Your task to perform on an android device: find photos in the google photos app Image 0: 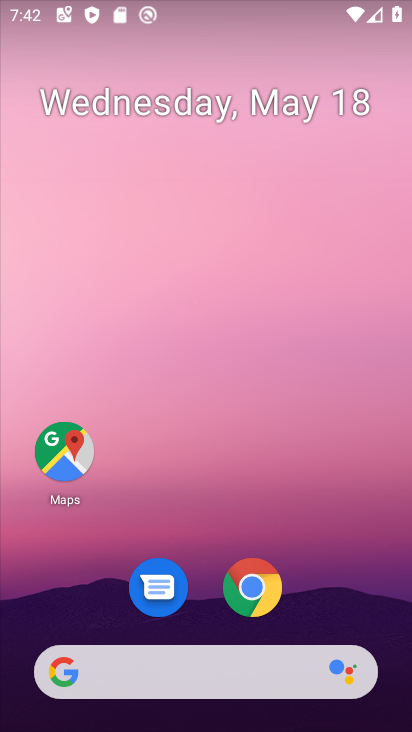
Step 0: drag from (204, 617) to (218, 213)
Your task to perform on an android device: find photos in the google photos app Image 1: 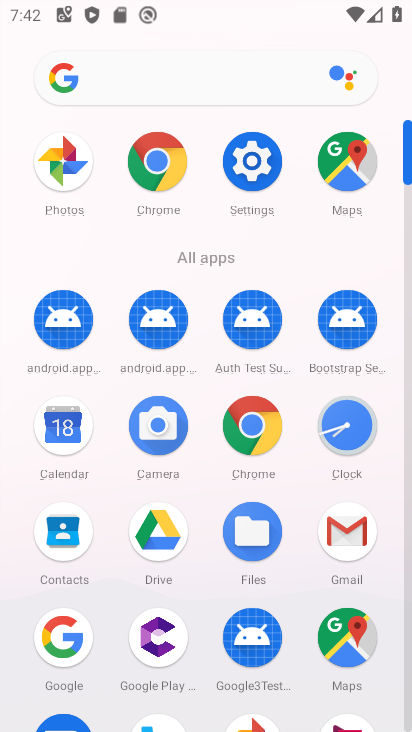
Step 1: click (58, 156)
Your task to perform on an android device: find photos in the google photos app Image 2: 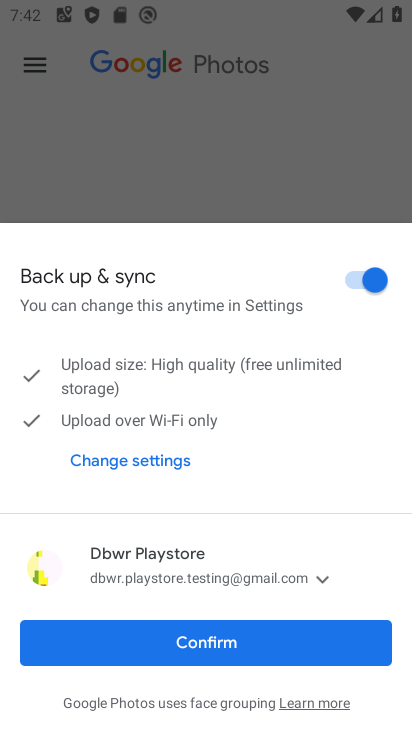
Step 2: click (256, 633)
Your task to perform on an android device: find photos in the google photos app Image 3: 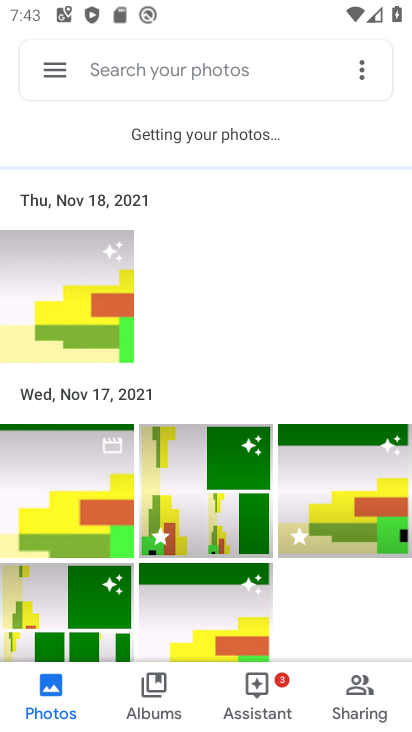
Step 3: task complete